Your task to perform on an android device: change alarm snooze length Image 0: 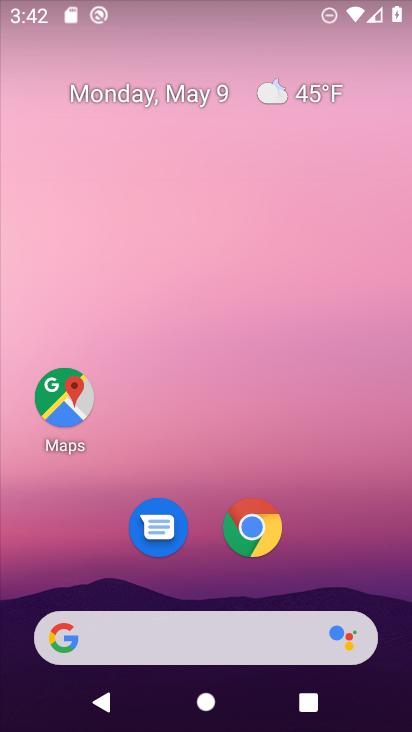
Step 0: drag from (368, 546) to (307, 108)
Your task to perform on an android device: change alarm snooze length Image 1: 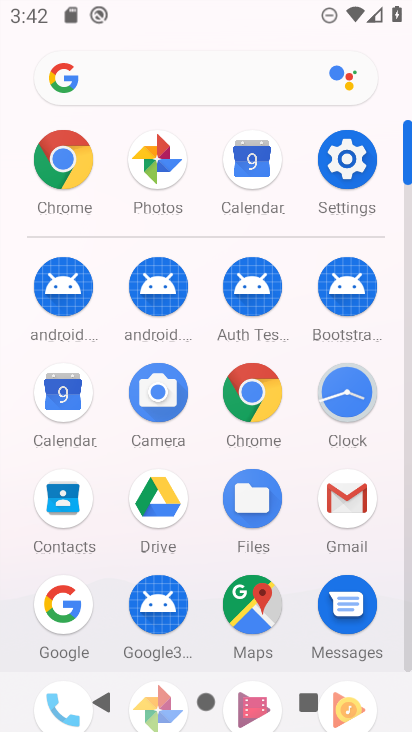
Step 1: click (334, 387)
Your task to perform on an android device: change alarm snooze length Image 2: 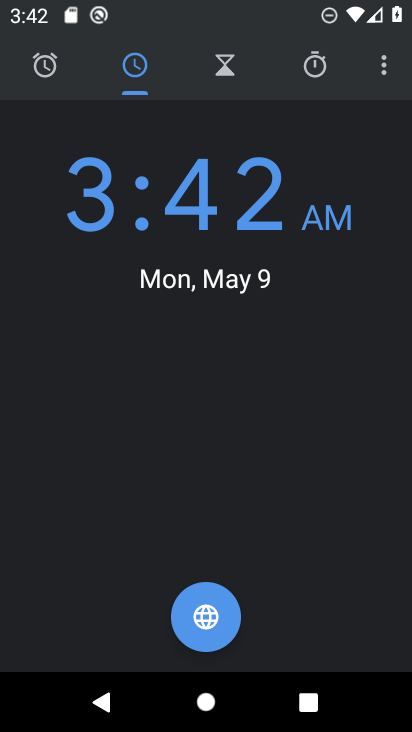
Step 2: click (382, 68)
Your task to perform on an android device: change alarm snooze length Image 3: 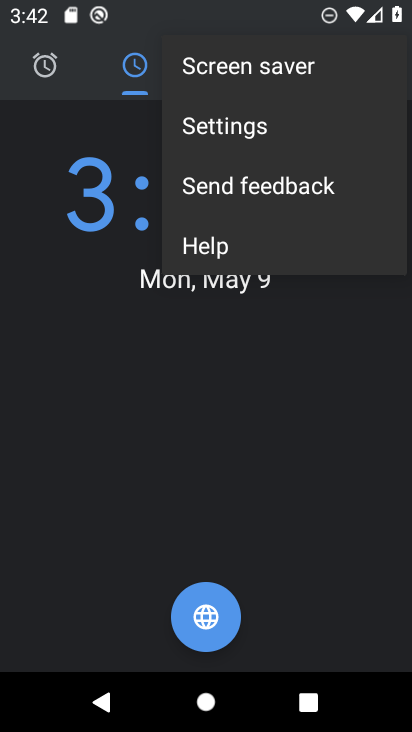
Step 3: click (350, 122)
Your task to perform on an android device: change alarm snooze length Image 4: 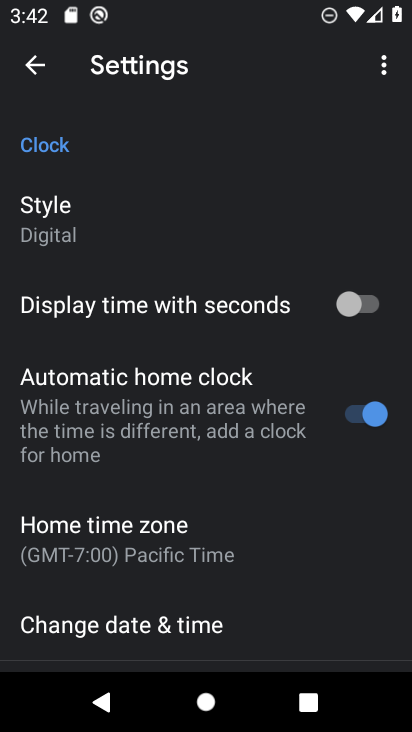
Step 4: drag from (281, 599) to (246, 94)
Your task to perform on an android device: change alarm snooze length Image 5: 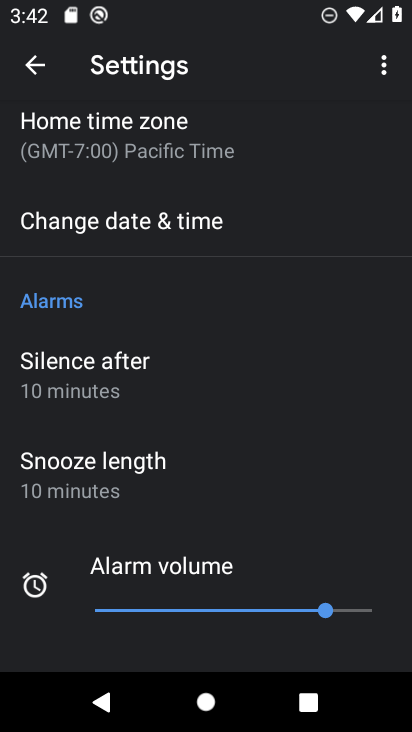
Step 5: click (285, 460)
Your task to perform on an android device: change alarm snooze length Image 6: 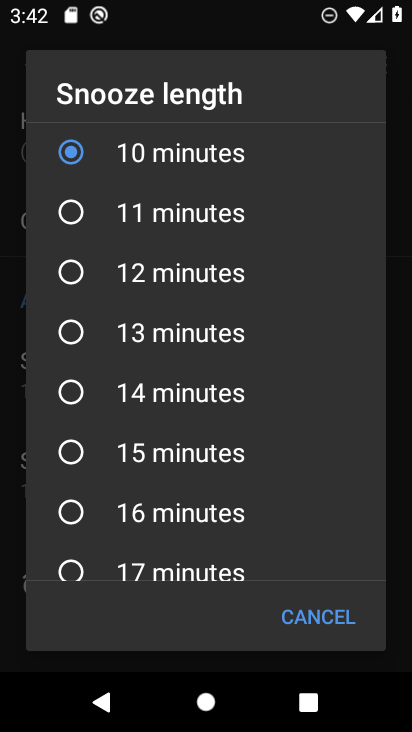
Step 6: click (226, 299)
Your task to perform on an android device: change alarm snooze length Image 7: 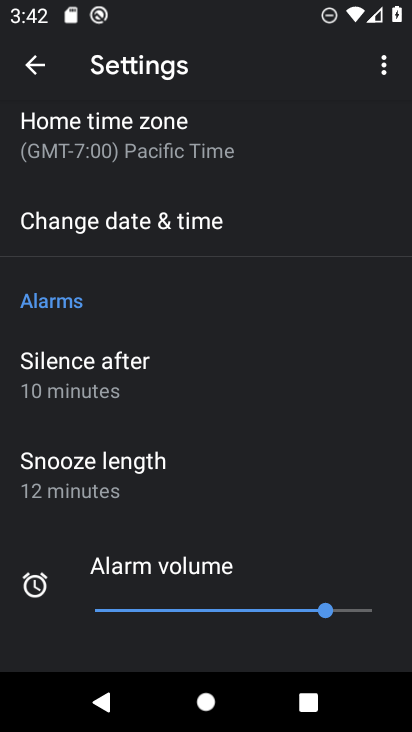
Step 7: task complete